Your task to perform on an android device: Go to Reddit.com Image 0: 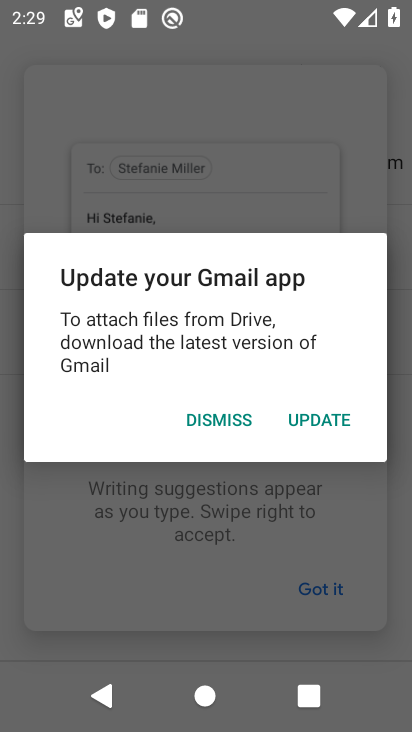
Step 0: press home button
Your task to perform on an android device: Go to Reddit.com Image 1: 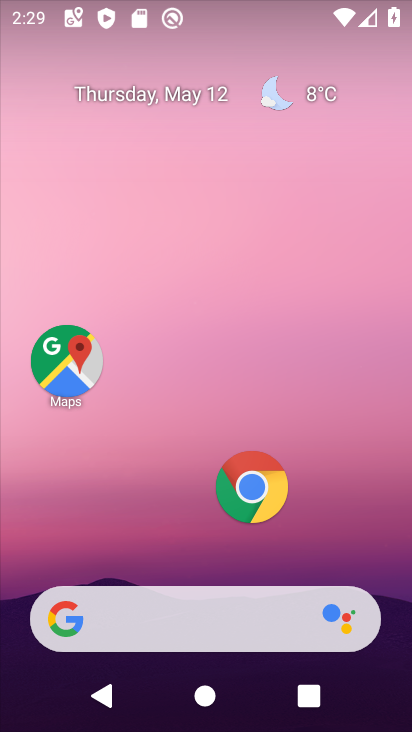
Step 1: click (152, 617)
Your task to perform on an android device: Go to Reddit.com Image 2: 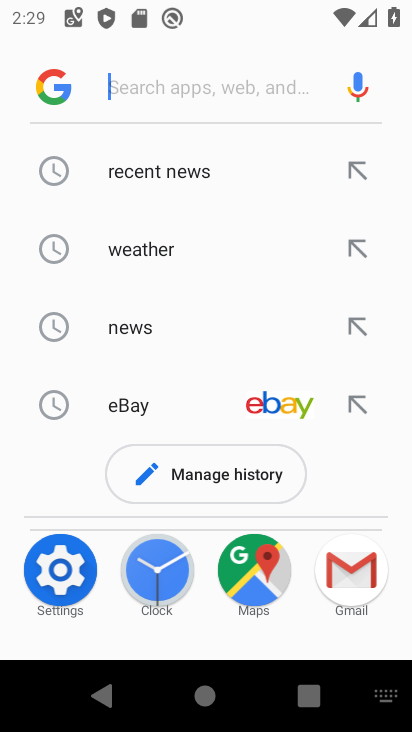
Step 2: type "Reddit"
Your task to perform on an android device: Go to Reddit.com Image 3: 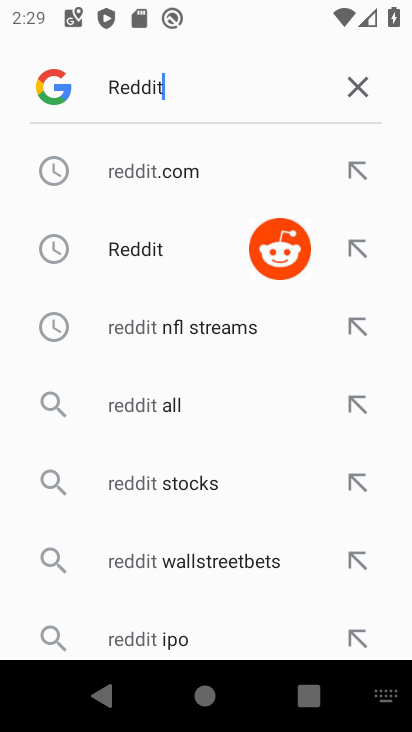
Step 3: click (175, 172)
Your task to perform on an android device: Go to Reddit.com Image 4: 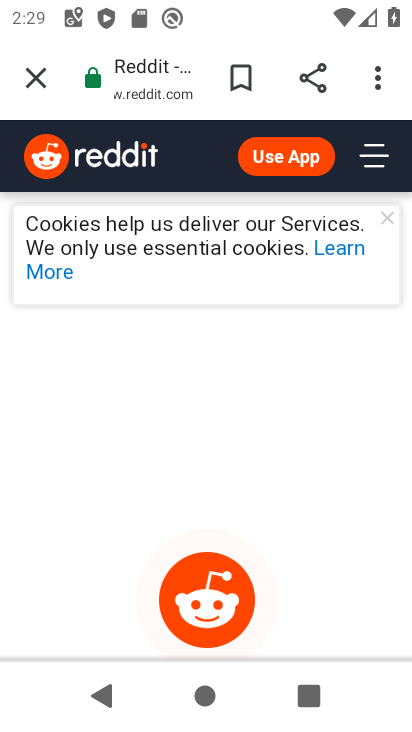
Step 4: task complete